Your task to perform on an android device: Open Chrome and go to the settings page Image 0: 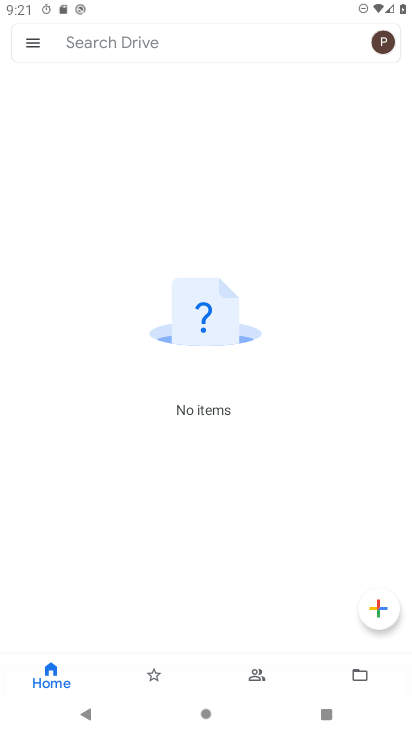
Step 0: press back button
Your task to perform on an android device: Open Chrome and go to the settings page Image 1: 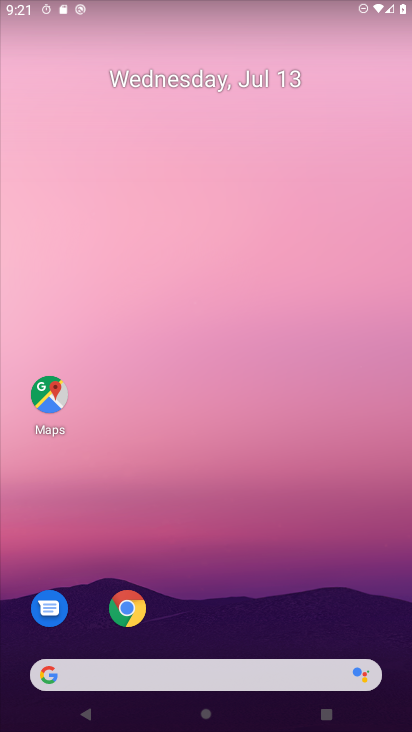
Step 1: drag from (215, 614) to (160, 228)
Your task to perform on an android device: Open Chrome and go to the settings page Image 2: 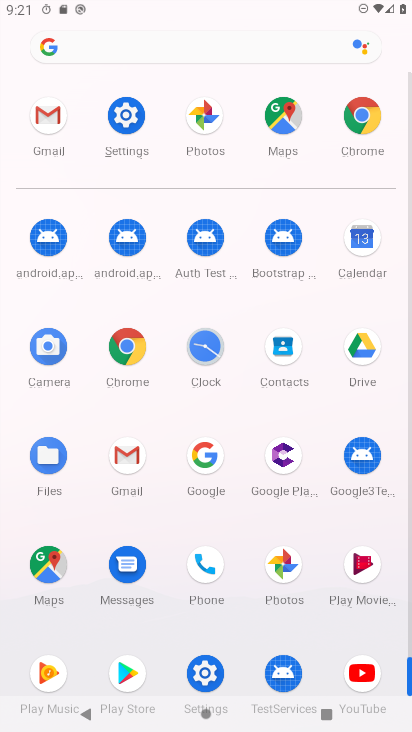
Step 2: click (203, 674)
Your task to perform on an android device: Open Chrome and go to the settings page Image 3: 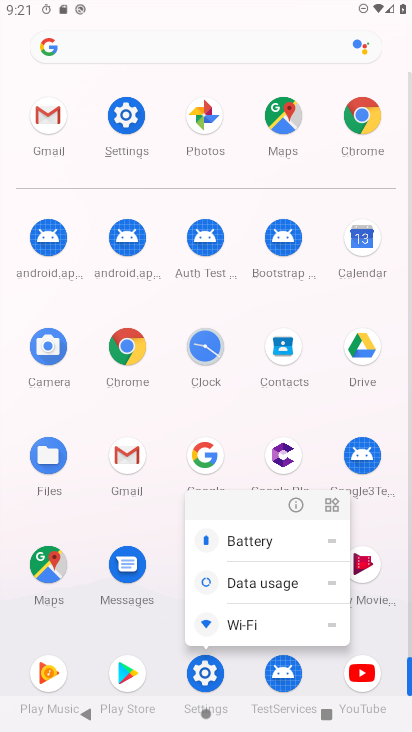
Step 3: click (198, 673)
Your task to perform on an android device: Open Chrome and go to the settings page Image 4: 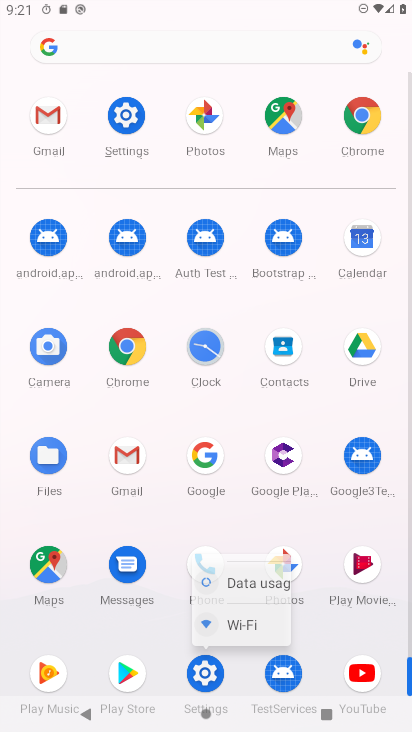
Step 4: click (198, 673)
Your task to perform on an android device: Open Chrome and go to the settings page Image 5: 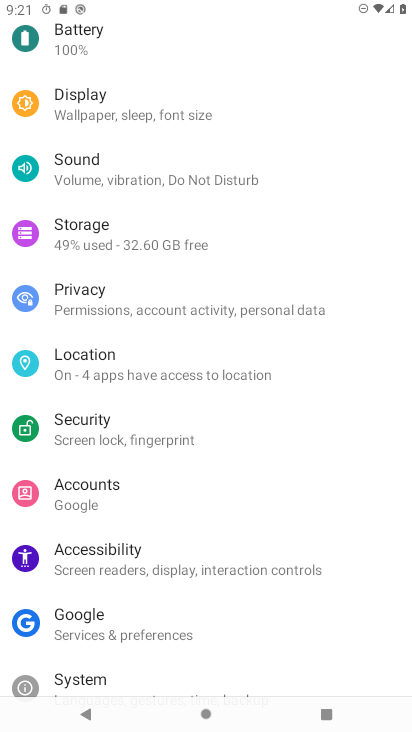
Step 5: press back button
Your task to perform on an android device: Open Chrome and go to the settings page Image 6: 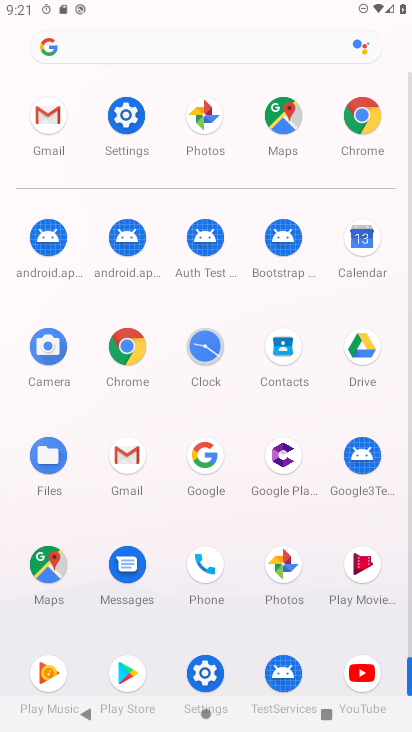
Step 6: click (132, 104)
Your task to perform on an android device: Open Chrome and go to the settings page Image 7: 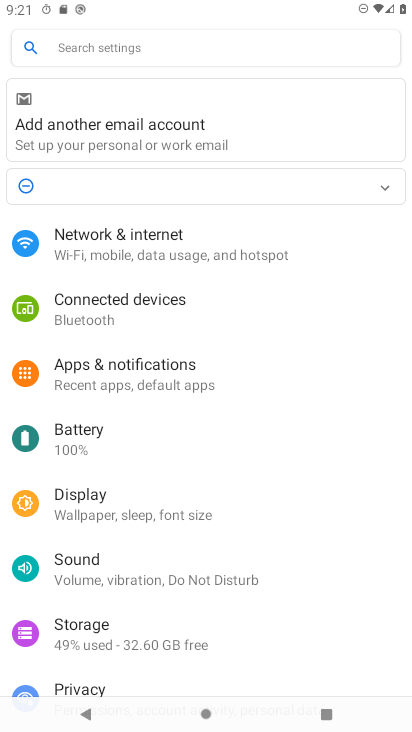
Step 7: press home button
Your task to perform on an android device: Open Chrome and go to the settings page Image 8: 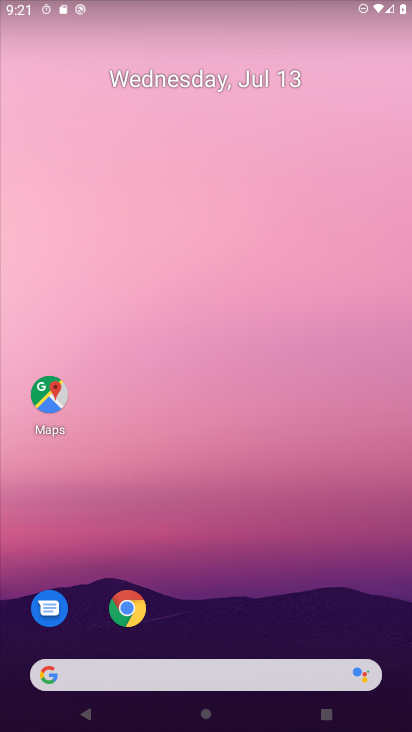
Step 8: drag from (248, 657) to (233, 102)
Your task to perform on an android device: Open Chrome and go to the settings page Image 9: 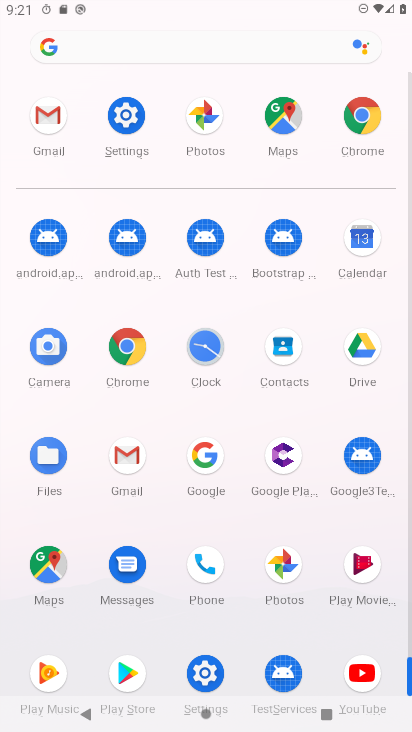
Step 9: click (355, 114)
Your task to perform on an android device: Open Chrome and go to the settings page Image 10: 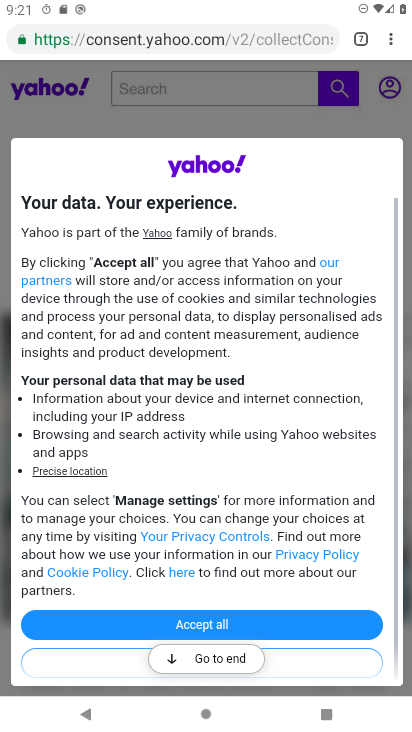
Step 10: drag from (390, 42) to (264, 475)
Your task to perform on an android device: Open Chrome and go to the settings page Image 11: 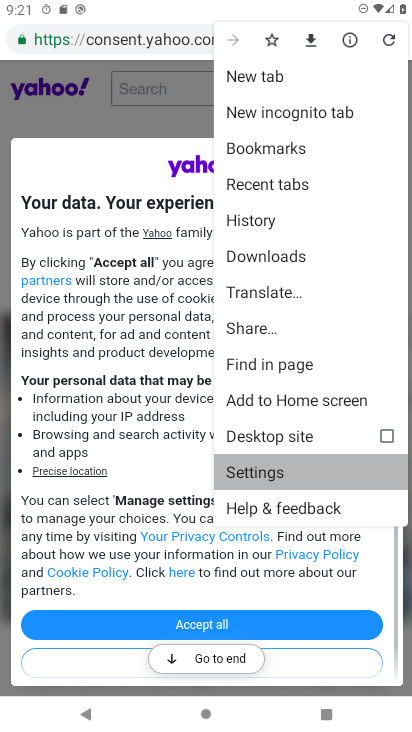
Step 11: click (264, 475)
Your task to perform on an android device: Open Chrome and go to the settings page Image 12: 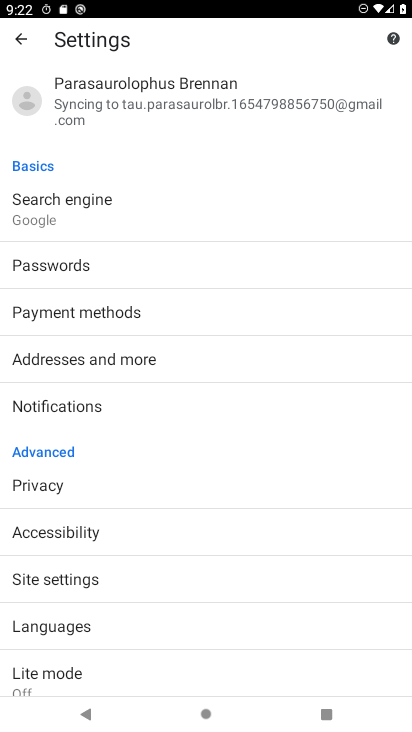
Step 12: drag from (122, 458) to (135, 174)
Your task to perform on an android device: Open Chrome and go to the settings page Image 13: 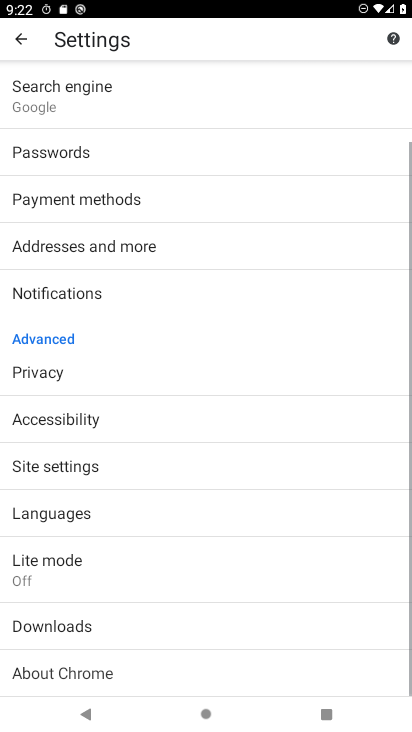
Step 13: drag from (135, 539) to (142, 236)
Your task to perform on an android device: Open Chrome and go to the settings page Image 14: 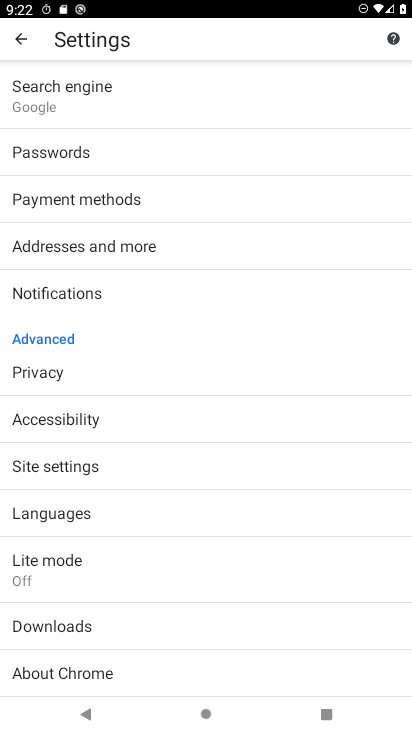
Step 14: click (52, 461)
Your task to perform on an android device: Open Chrome and go to the settings page Image 15: 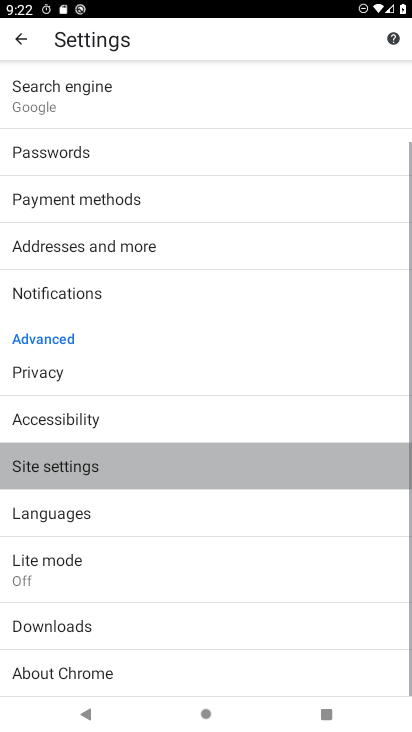
Step 15: click (51, 462)
Your task to perform on an android device: Open Chrome and go to the settings page Image 16: 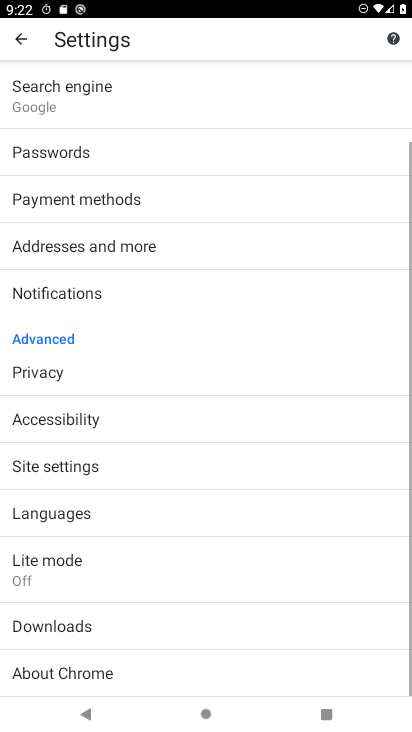
Step 16: click (51, 462)
Your task to perform on an android device: Open Chrome and go to the settings page Image 17: 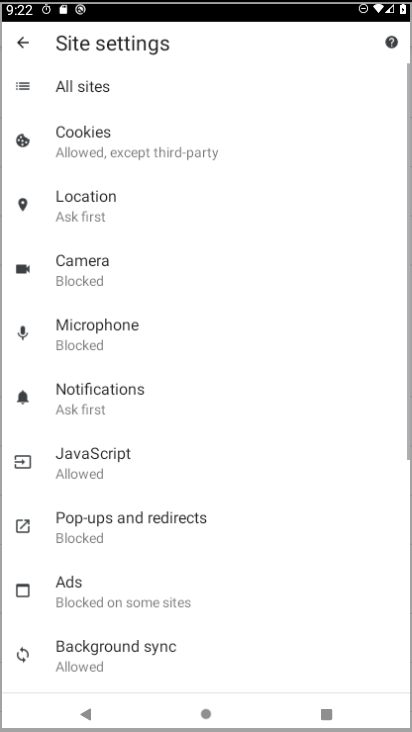
Step 17: click (51, 462)
Your task to perform on an android device: Open Chrome and go to the settings page Image 18: 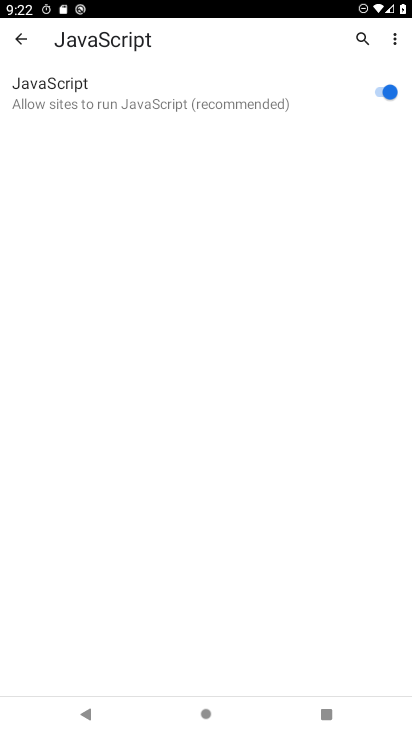
Step 18: task complete